Your task to perform on an android device: turn on the 24-hour format for clock Image 0: 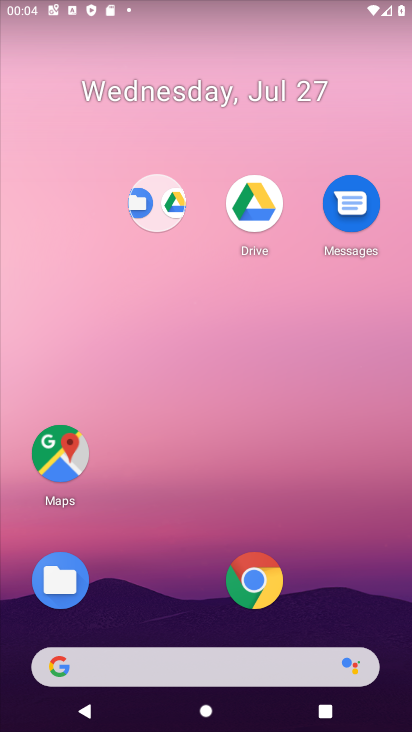
Step 0: drag from (177, 585) to (222, 87)
Your task to perform on an android device: turn on the 24-hour format for clock Image 1: 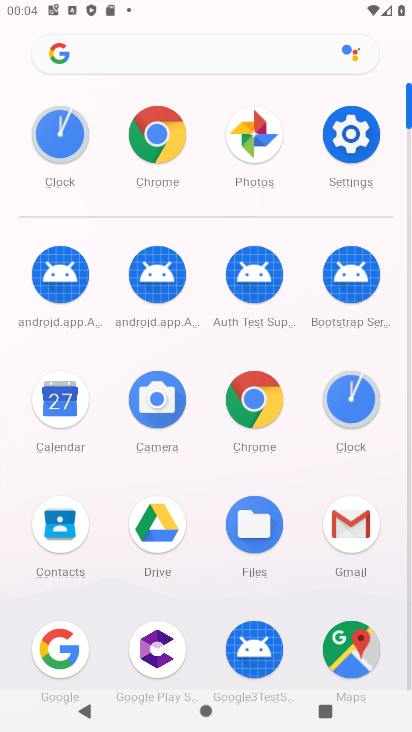
Step 1: click (339, 403)
Your task to perform on an android device: turn on the 24-hour format for clock Image 2: 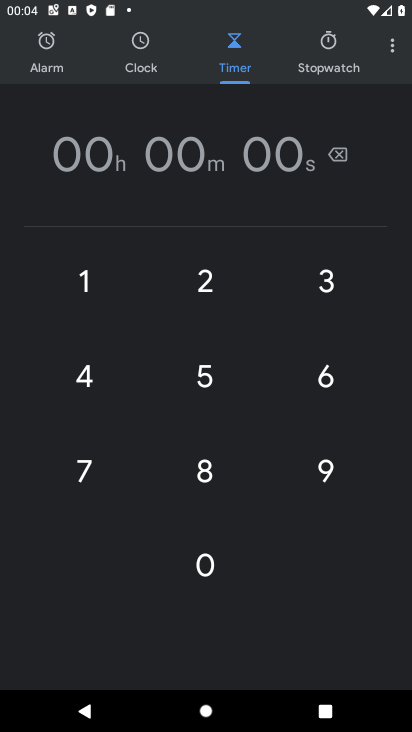
Step 2: click (401, 44)
Your task to perform on an android device: turn on the 24-hour format for clock Image 3: 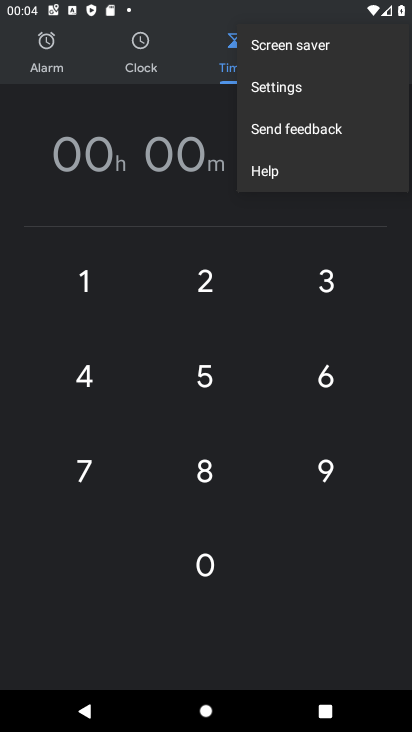
Step 3: click (324, 93)
Your task to perform on an android device: turn on the 24-hour format for clock Image 4: 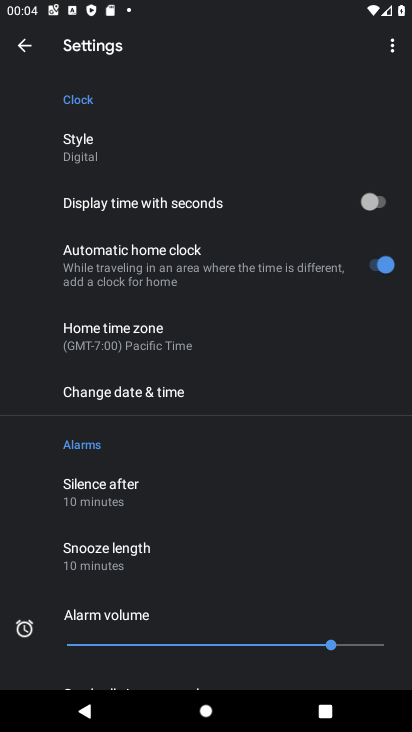
Step 4: click (204, 393)
Your task to perform on an android device: turn on the 24-hour format for clock Image 5: 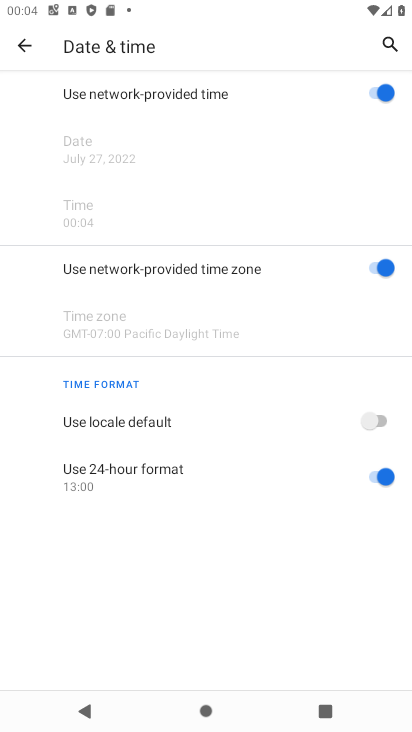
Step 5: task complete